Your task to perform on an android device: Show me the alarms in the clock app Image 0: 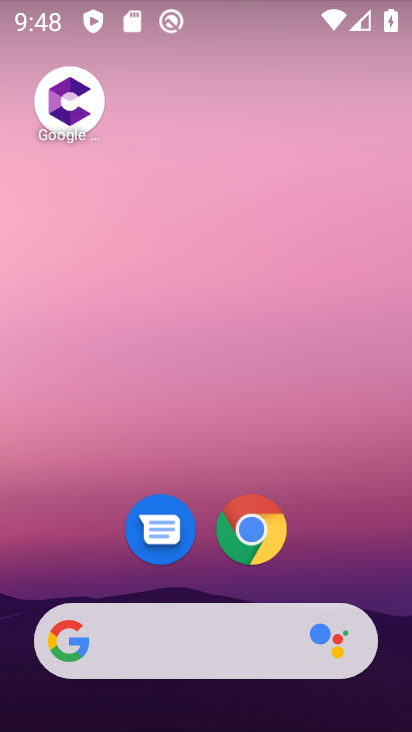
Step 0: drag from (258, 590) to (174, 11)
Your task to perform on an android device: Show me the alarms in the clock app Image 1: 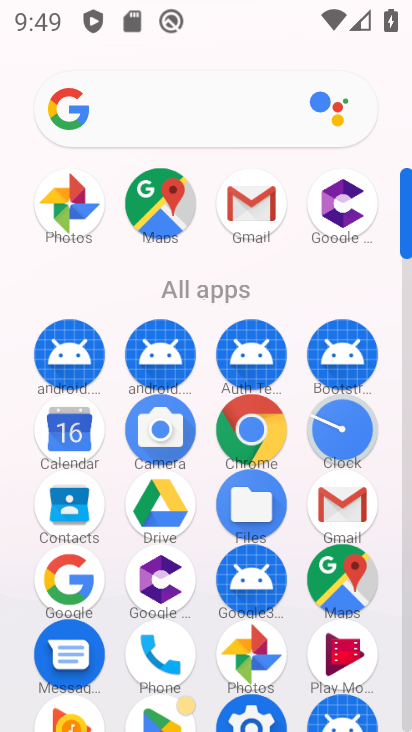
Step 1: click (356, 460)
Your task to perform on an android device: Show me the alarms in the clock app Image 2: 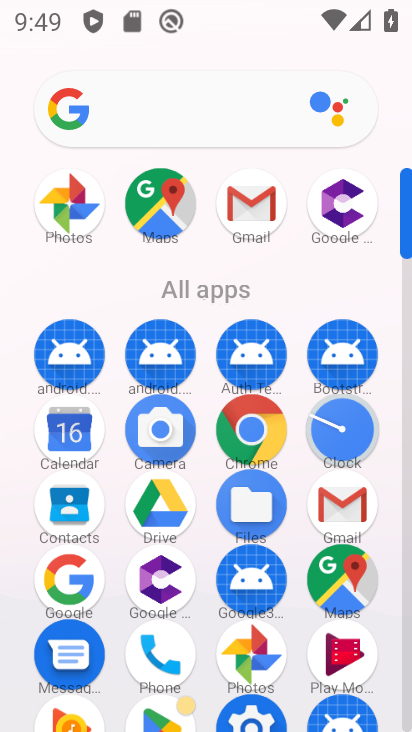
Step 2: click (339, 439)
Your task to perform on an android device: Show me the alarms in the clock app Image 3: 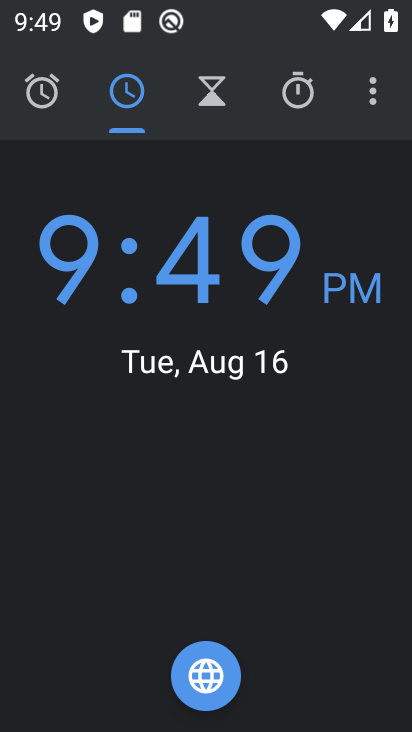
Step 3: click (40, 91)
Your task to perform on an android device: Show me the alarms in the clock app Image 4: 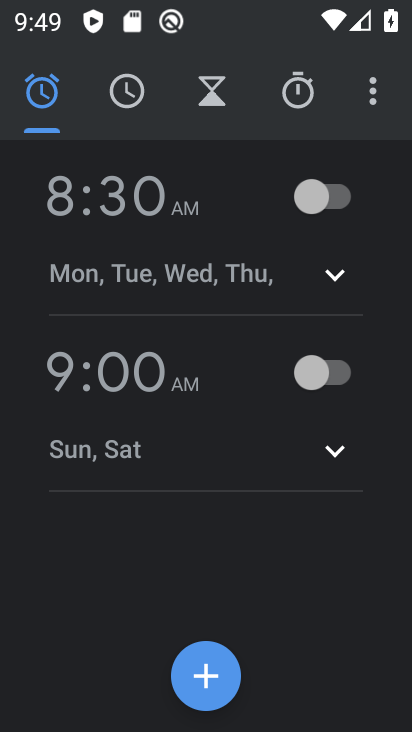
Step 4: click (97, 199)
Your task to perform on an android device: Show me the alarms in the clock app Image 5: 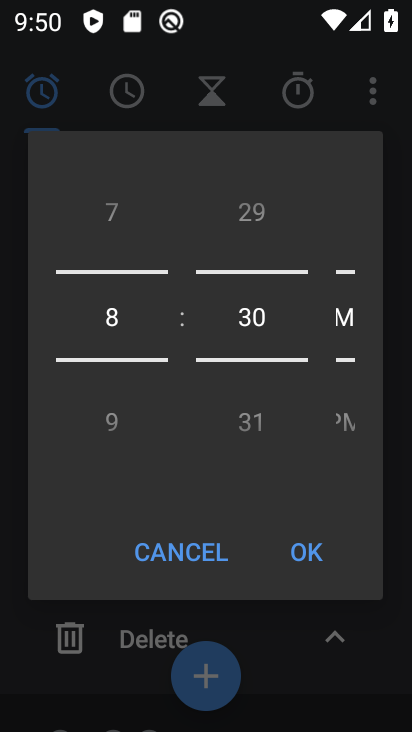
Step 5: task complete